Your task to perform on an android device: snooze an email in the gmail app Image 0: 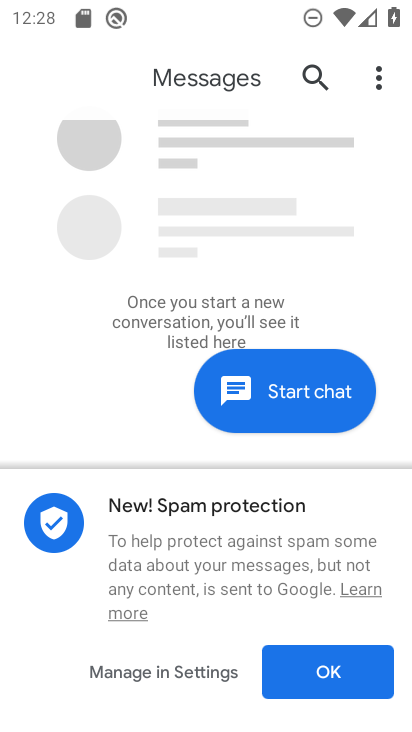
Step 0: press home button
Your task to perform on an android device: snooze an email in the gmail app Image 1: 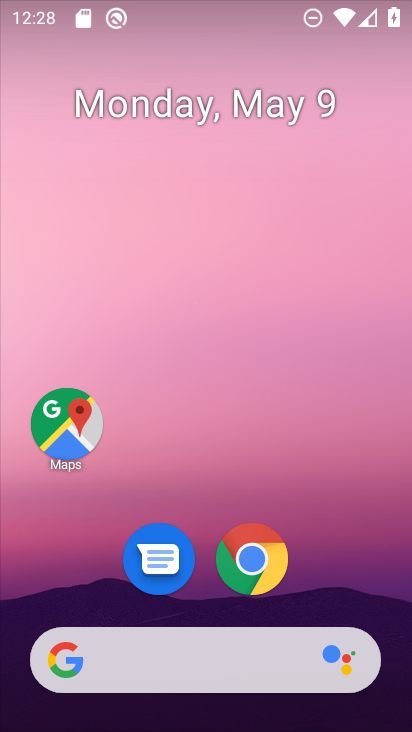
Step 1: drag from (316, 567) to (314, 201)
Your task to perform on an android device: snooze an email in the gmail app Image 2: 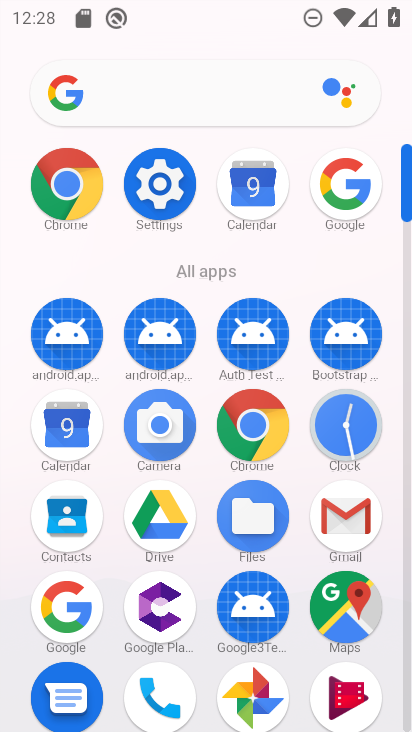
Step 2: click (329, 537)
Your task to perform on an android device: snooze an email in the gmail app Image 3: 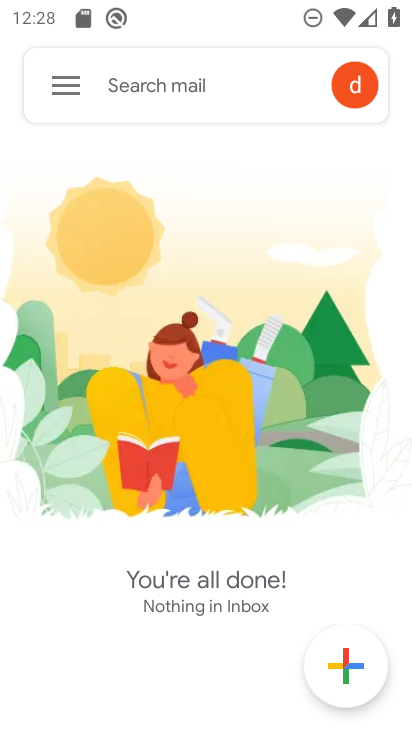
Step 3: click (36, 70)
Your task to perform on an android device: snooze an email in the gmail app Image 4: 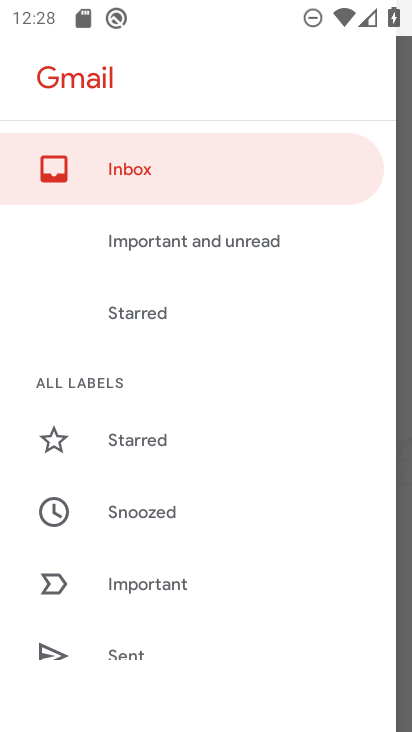
Step 4: task complete